Your task to perform on an android device: Open Chrome and go to settings Image 0: 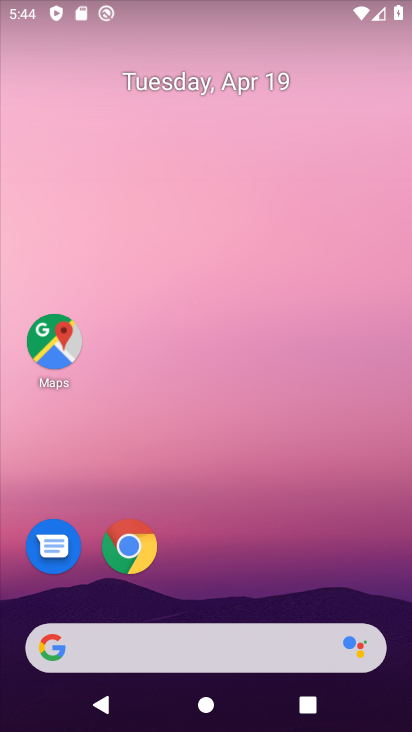
Step 0: drag from (290, 593) to (294, 113)
Your task to perform on an android device: Open Chrome and go to settings Image 1: 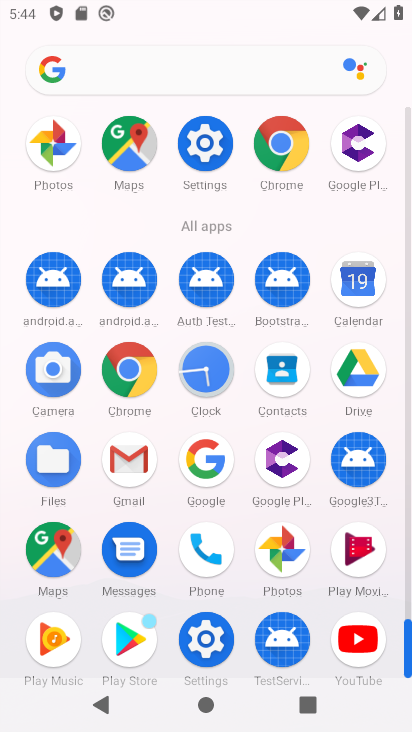
Step 1: click (129, 365)
Your task to perform on an android device: Open Chrome and go to settings Image 2: 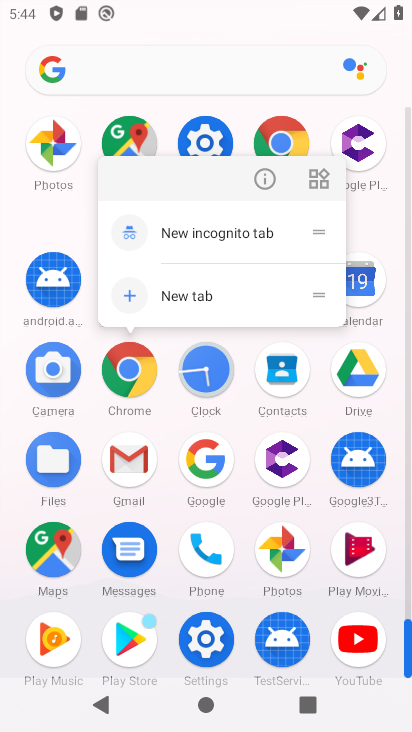
Step 2: click (125, 379)
Your task to perform on an android device: Open Chrome and go to settings Image 3: 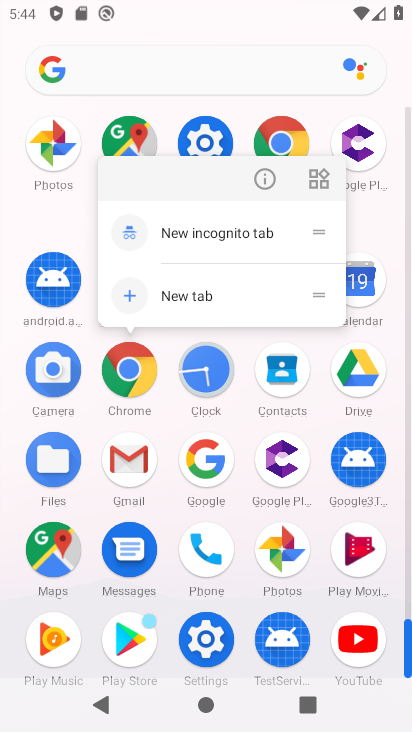
Step 3: click (136, 383)
Your task to perform on an android device: Open Chrome and go to settings Image 4: 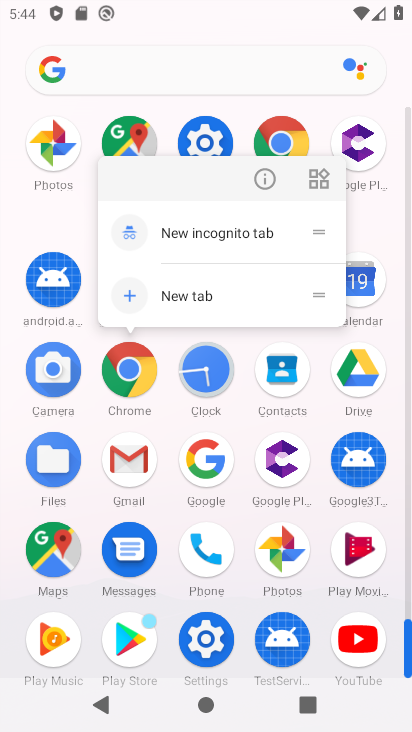
Step 4: click (140, 377)
Your task to perform on an android device: Open Chrome and go to settings Image 5: 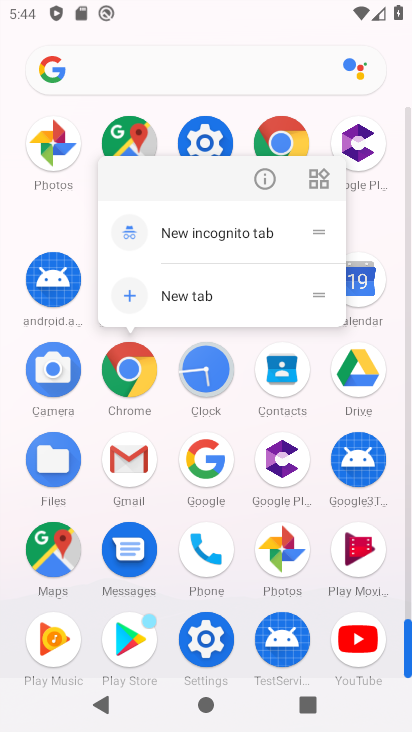
Step 5: click (116, 372)
Your task to perform on an android device: Open Chrome and go to settings Image 6: 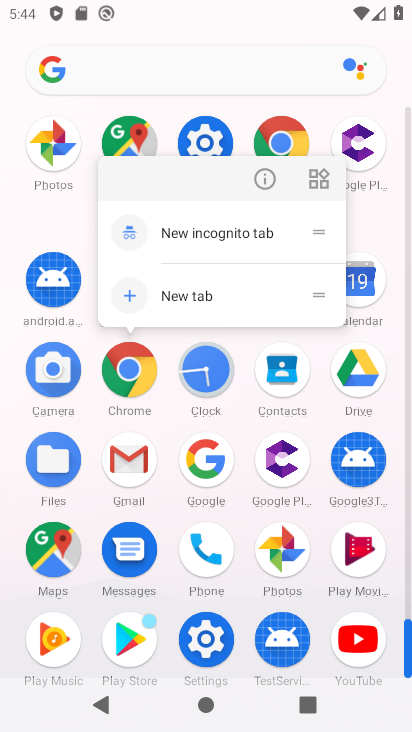
Step 6: click (120, 371)
Your task to perform on an android device: Open Chrome and go to settings Image 7: 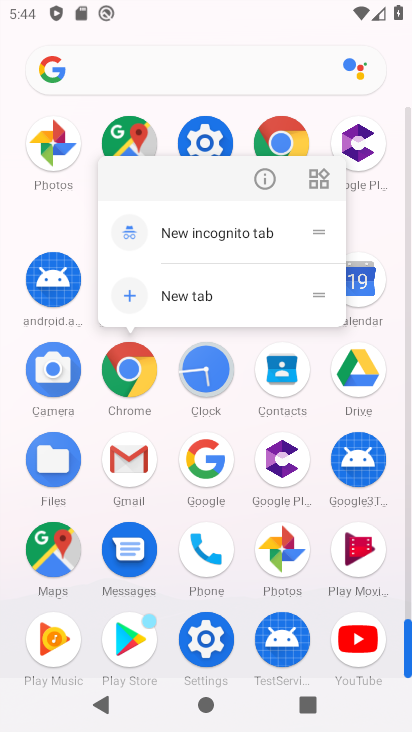
Step 7: click (128, 360)
Your task to perform on an android device: Open Chrome and go to settings Image 8: 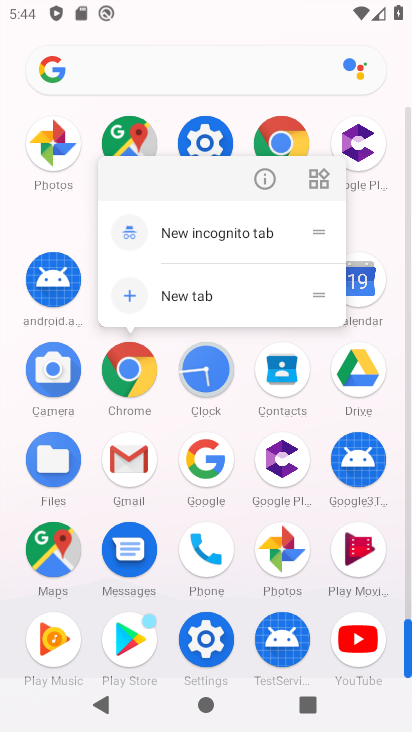
Step 8: click (141, 383)
Your task to perform on an android device: Open Chrome and go to settings Image 9: 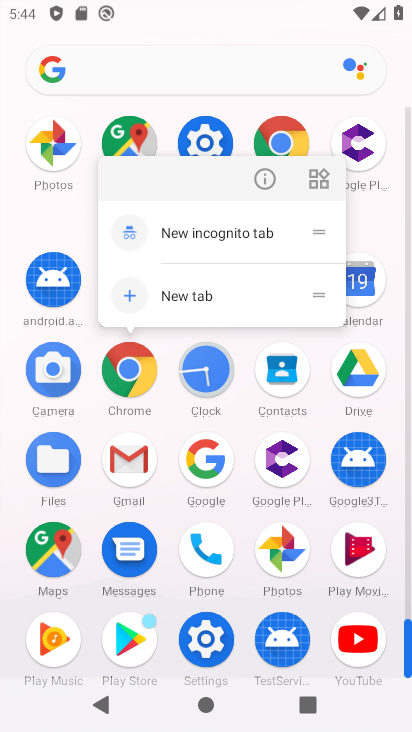
Step 9: click (140, 382)
Your task to perform on an android device: Open Chrome and go to settings Image 10: 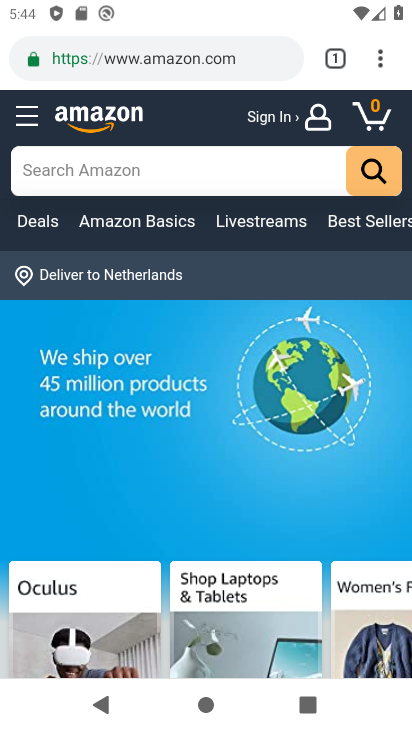
Step 10: task complete